Your task to perform on an android device: set the timer Image 0: 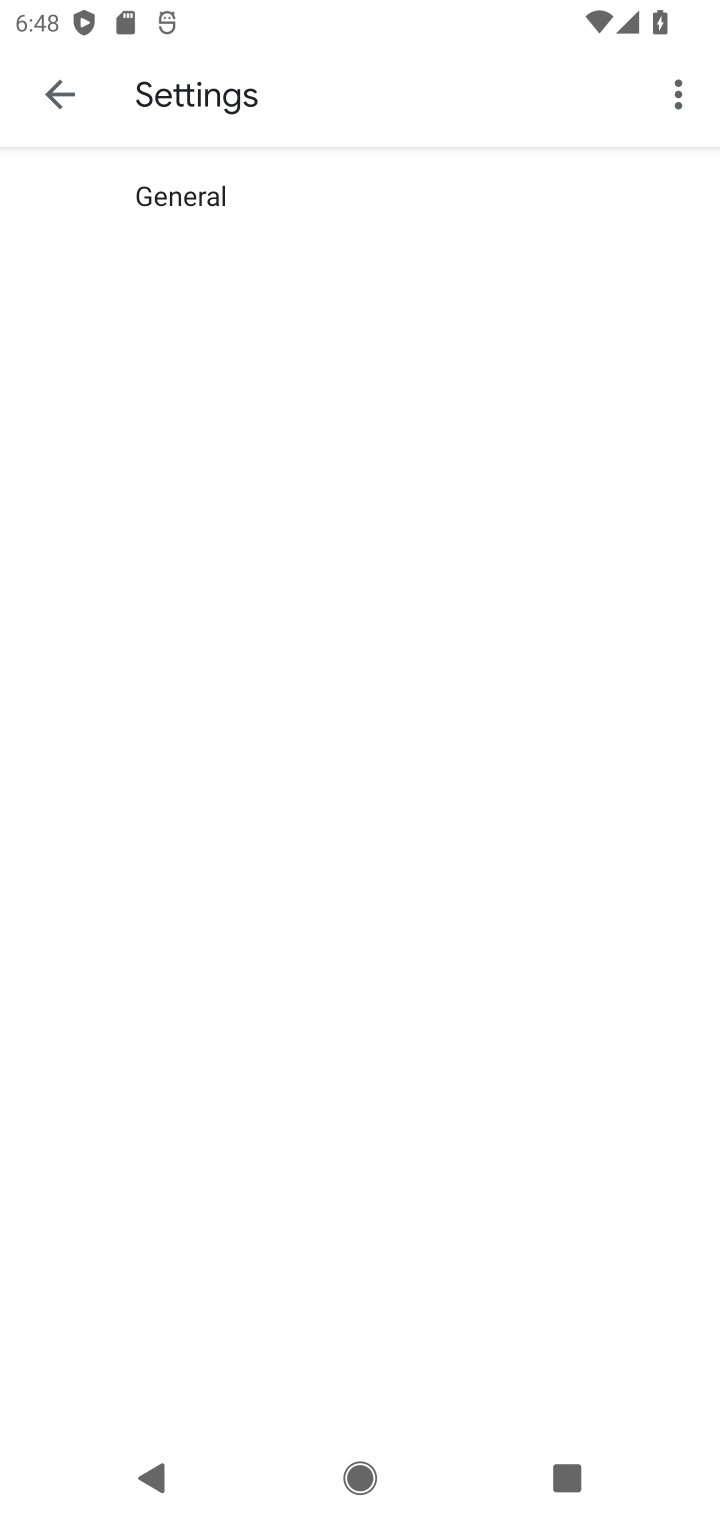
Step 0: press home button
Your task to perform on an android device: set the timer Image 1: 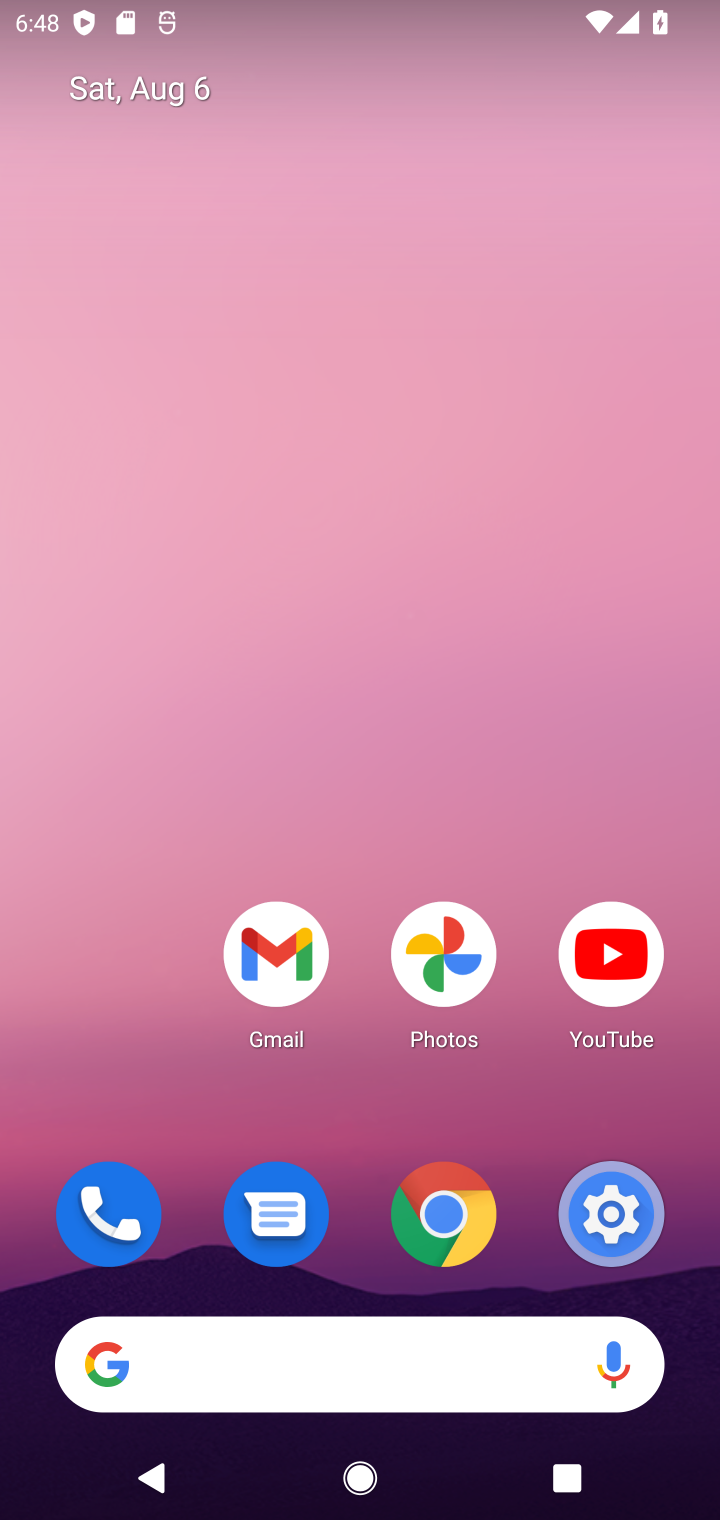
Step 1: drag from (344, 1220) to (429, 380)
Your task to perform on an android device: set the timer Image 2: 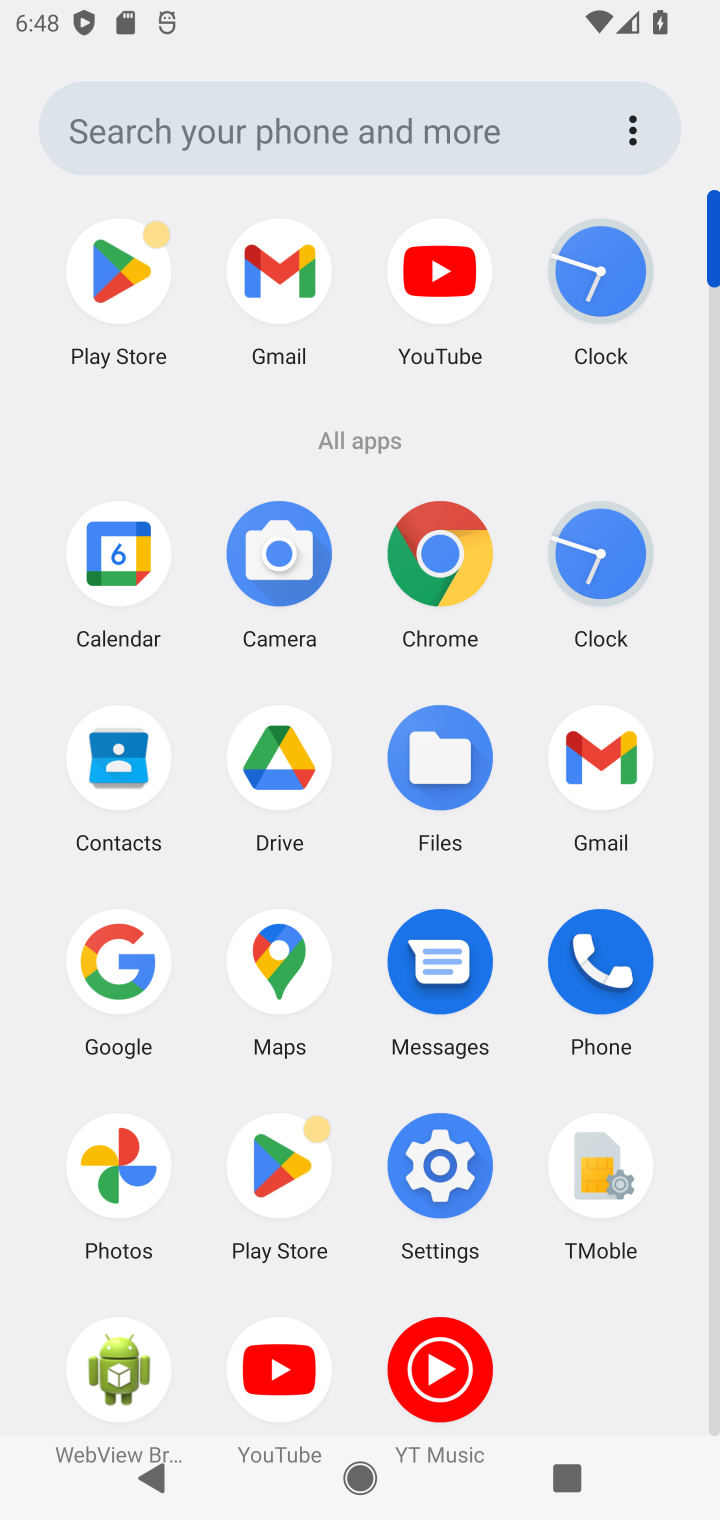
Step 2: click (593, 565)
Your task to perform on an android device: set the timer Image 3: 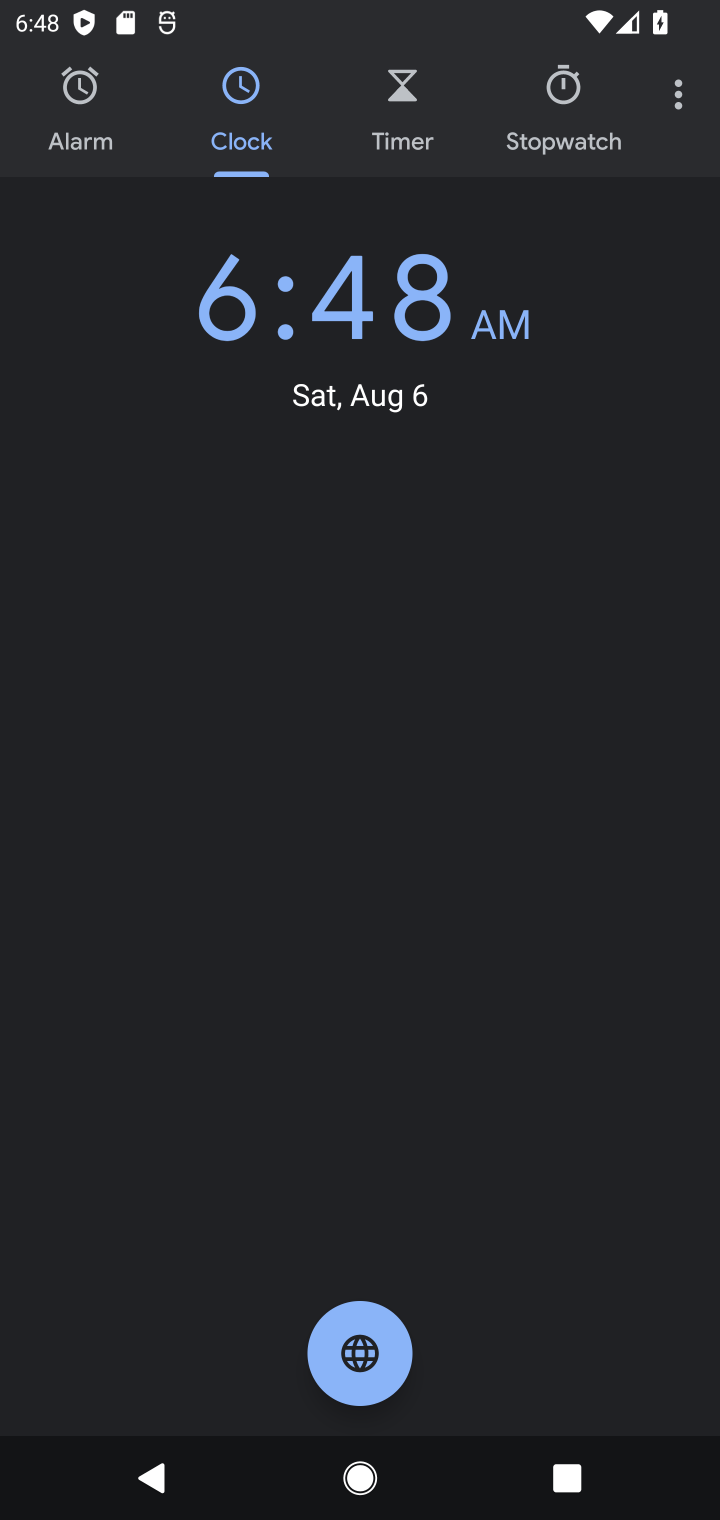
Step 3: click (405, 134)
Your task to perform on an android device: set the timer Image 4: 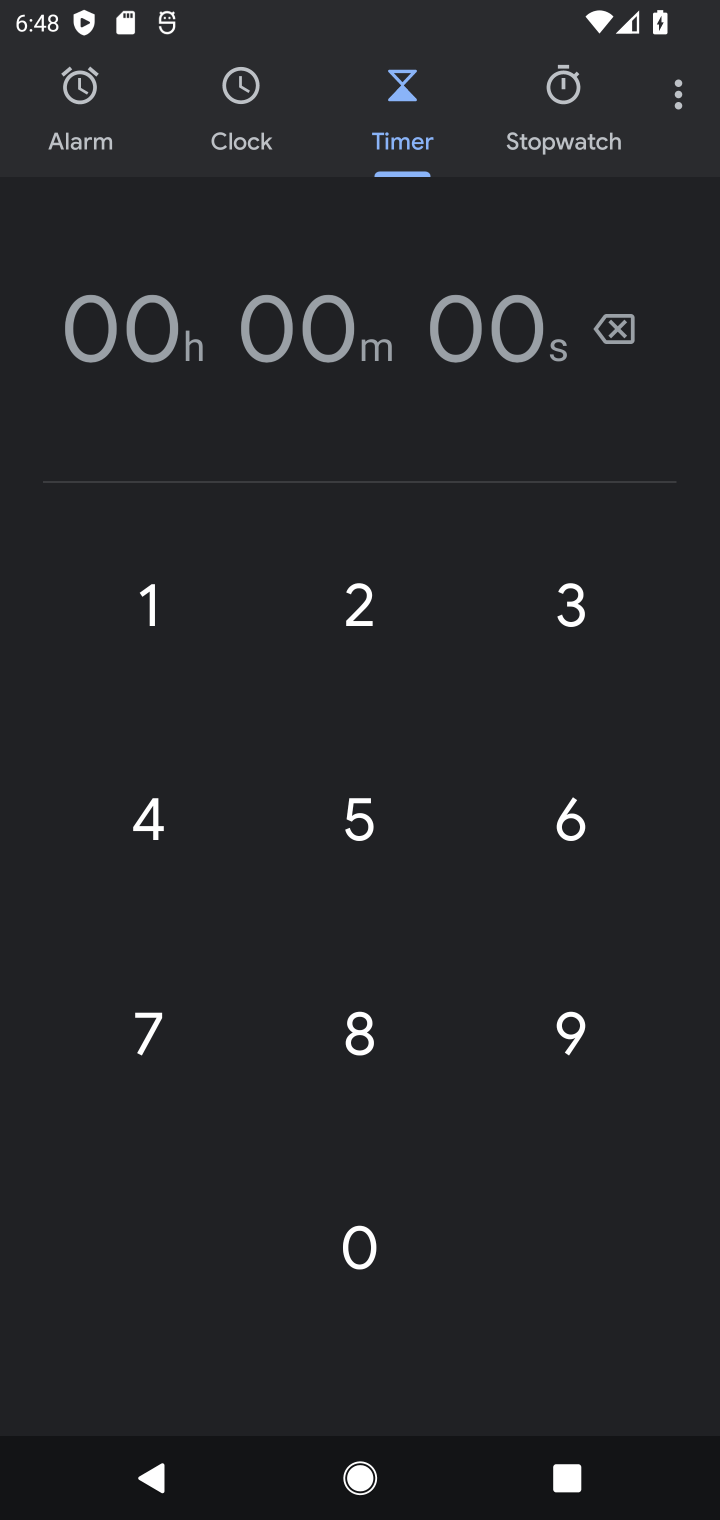
Step 4: click (152, 1048)
Your task to perform on an android device: set the timer Image 5: 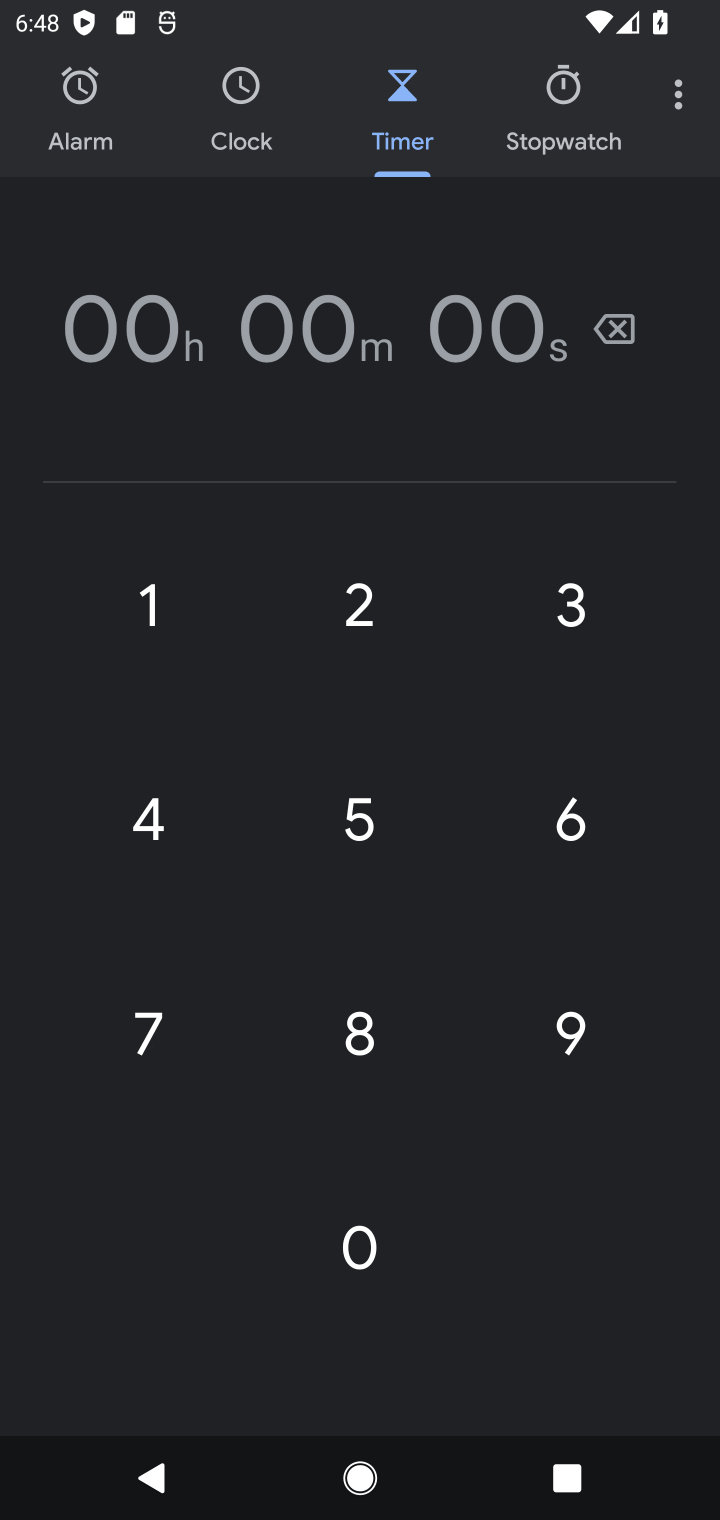
Step 5: click (337, 813)
Your task to perform on an android device: set the timer Image 6: 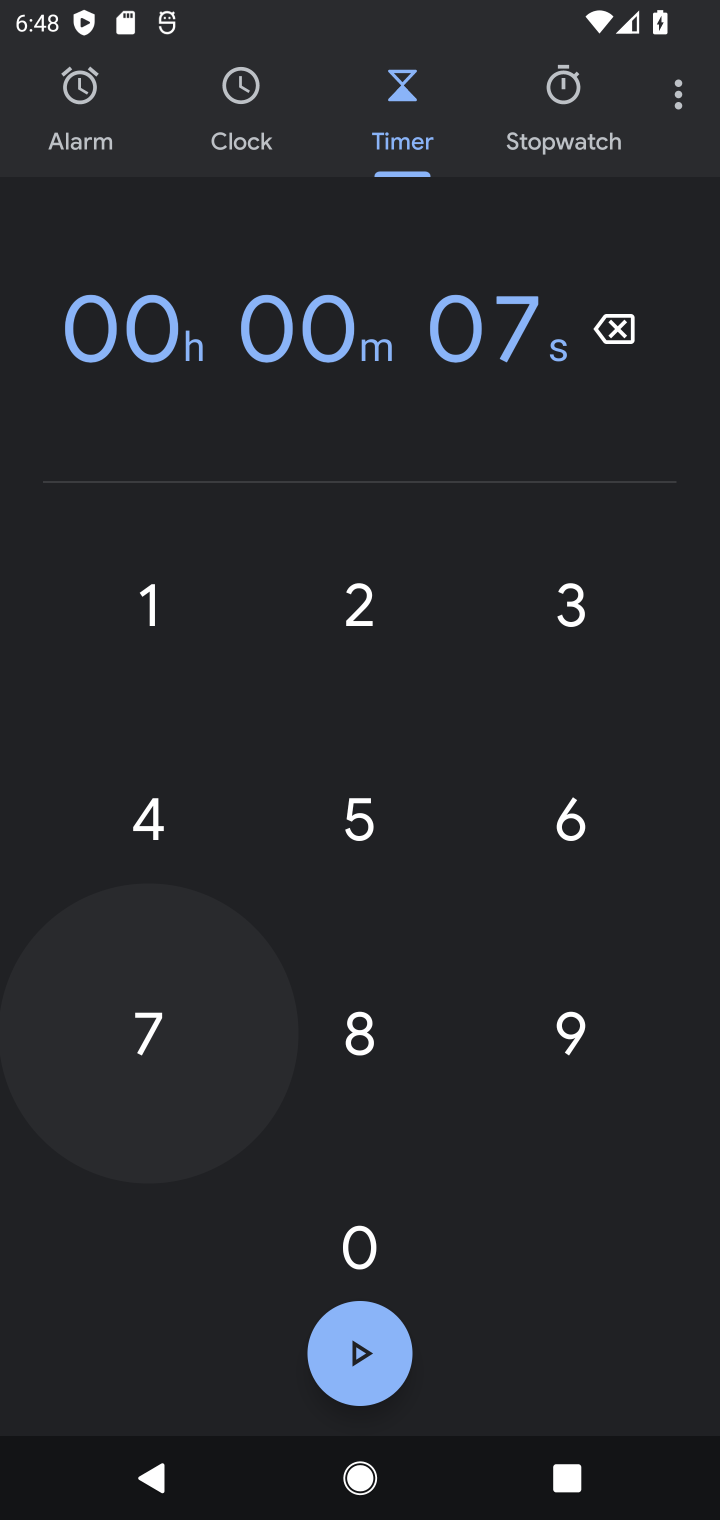
Step 6: click (564, 1045)
Your task to perform on an android device: set the timer Image 7: 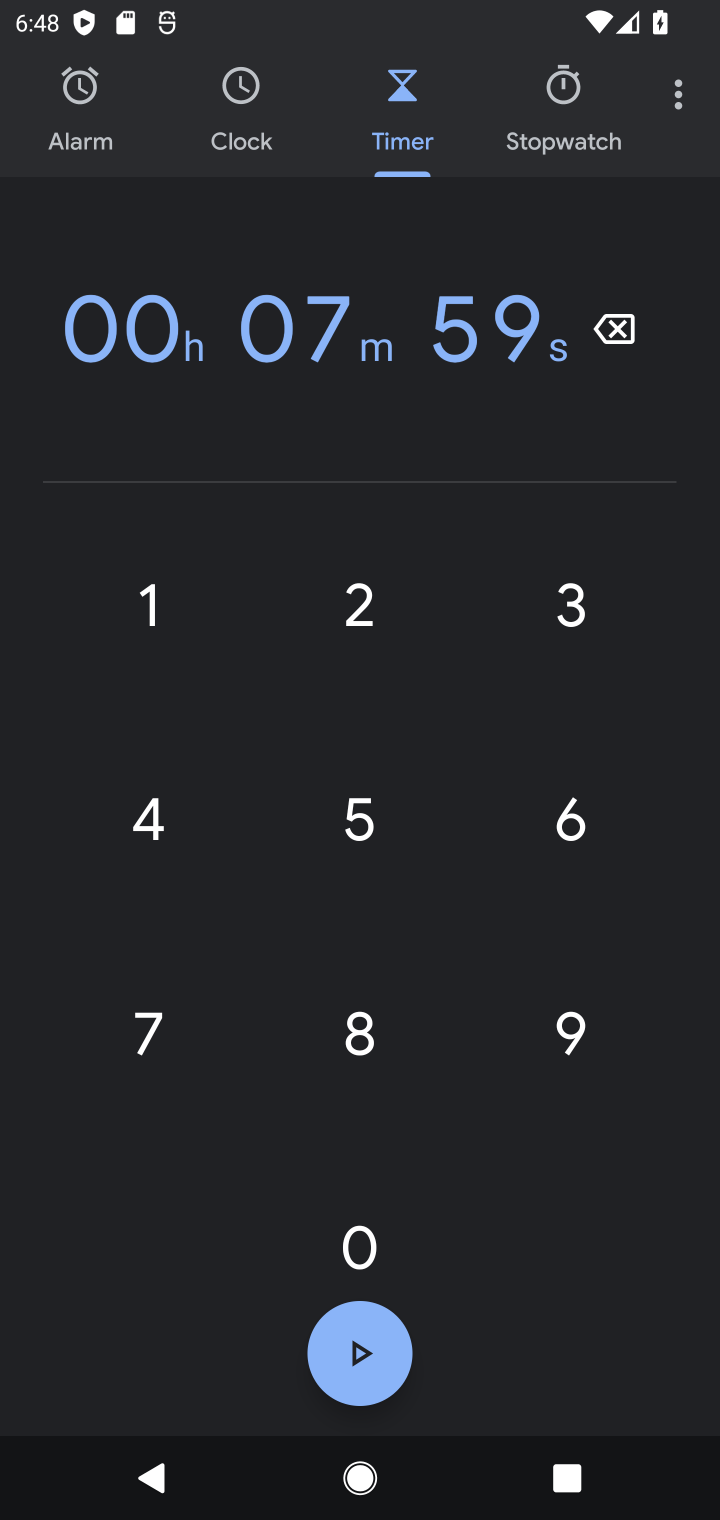
Step 7: click (376, 1334)
Your task to perform on an android device: set the timer Image 8: 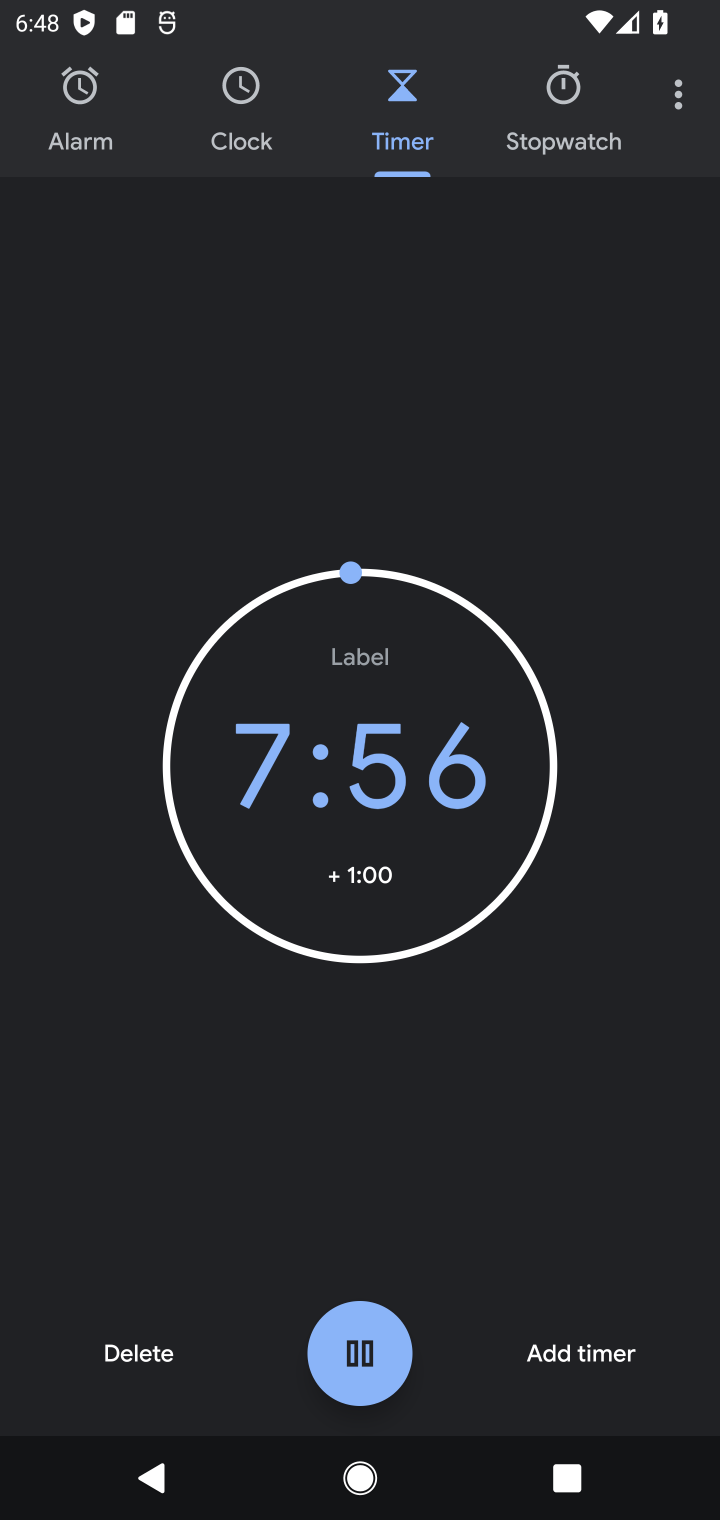
Step 8: task complete